Your task to perform on an android device: Go to Yahoo.com Image 0: 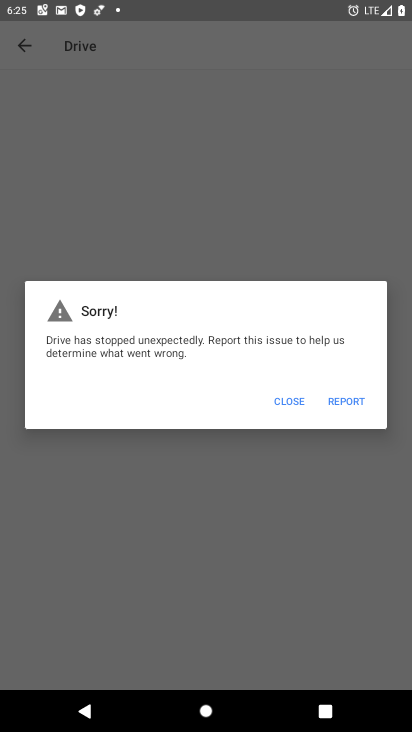
Step 0: press home button
Your task to perform on an android device: Go to Yahoo.com Image 1: 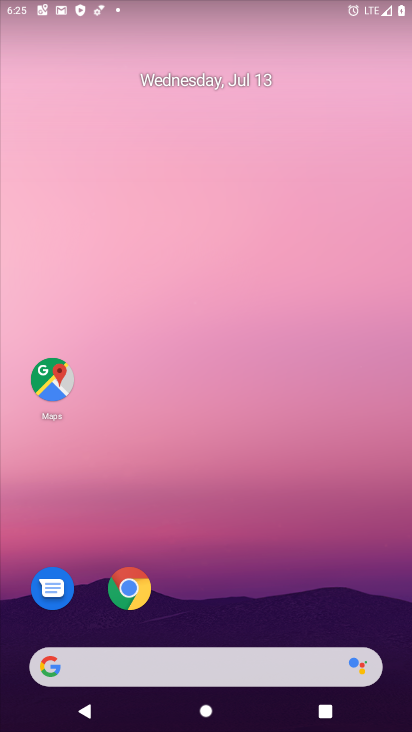
Step 1: click (126, 596)
Your task to perform on an android device: Go to Yahoo.com Image 2: 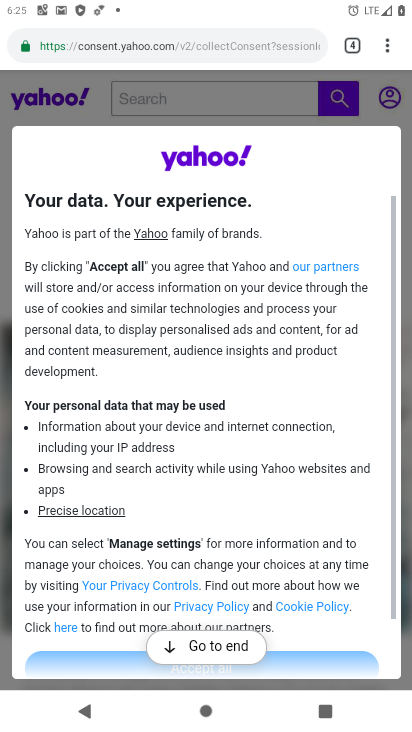
Step 2: task complete